Your task to perform on an android device: Go to privacy settings Image 0: 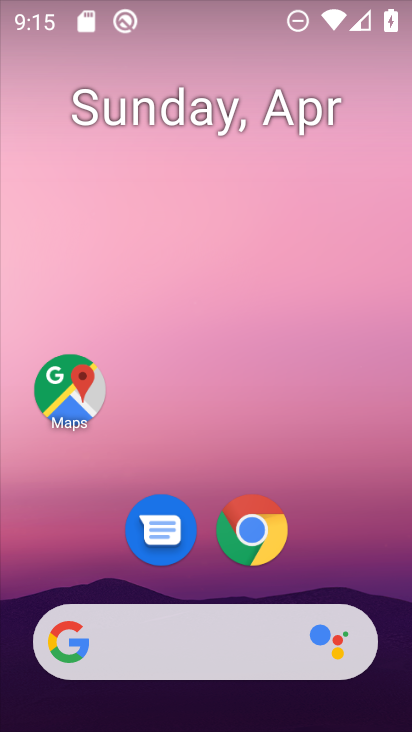
Step 0: drag from (397, 497) to (401, 0)
Your task to perform on an android device: Go to privacy settings Image 1: 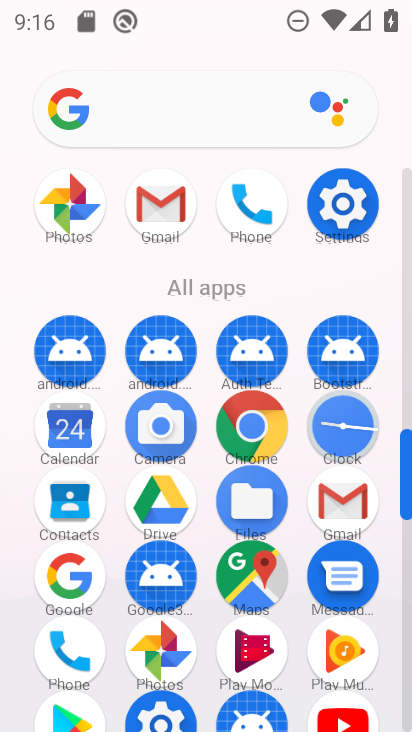
Step 1: click (346, 203)
Your task to perform on an android device: Go to privacy settings Image 2: 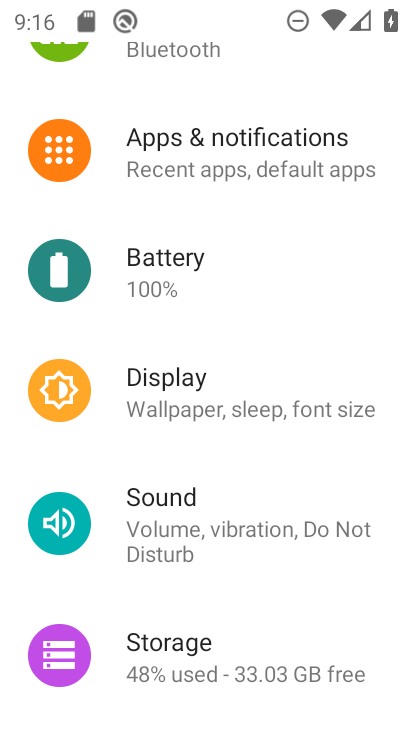
Step 2: drag from (363, 598) to (369, 287)
Your task to perform on an android device: Go to privacy settings Image 3: 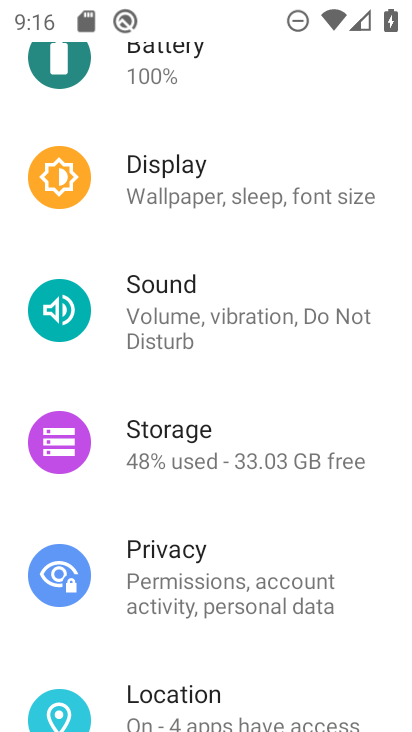
Step 3: click (148, 572)
Your task to perform on an android device: Go to privacy settings Image 4: 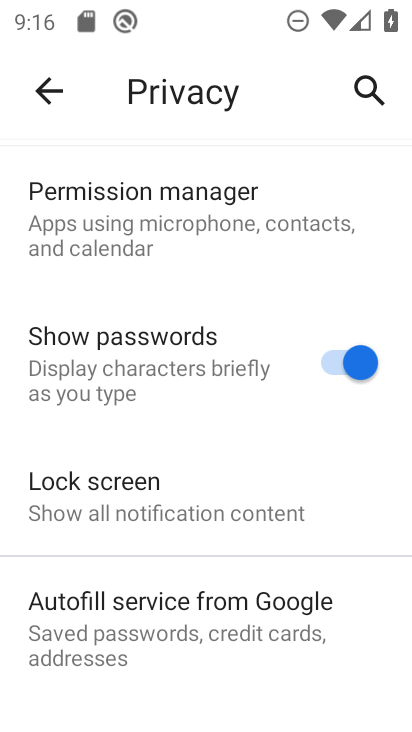
Step 4: task complete